Your task to perform on an android device: find which apps use the phone's location Image 0: 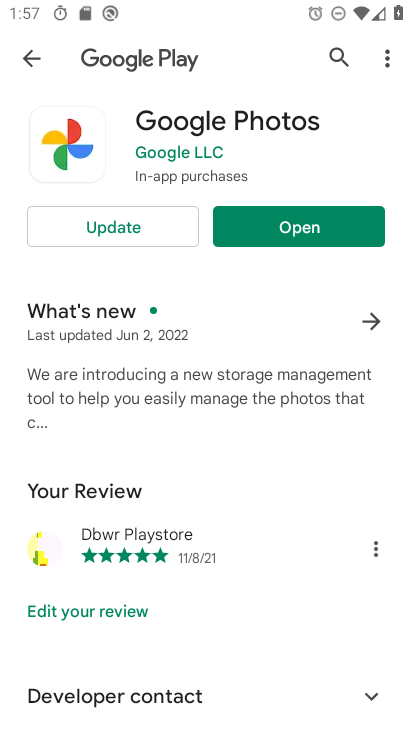
Step 0: press home button
Your task to perform on an android device: find which apps use the phone's location Image 1: 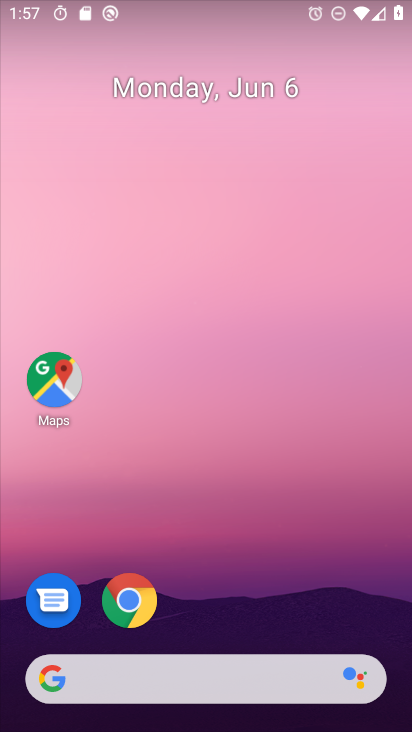
Step 1: drag from (199, 627) to (205, 142)
Your task to perform on an android device: find which apps use the phone's location Image 2: 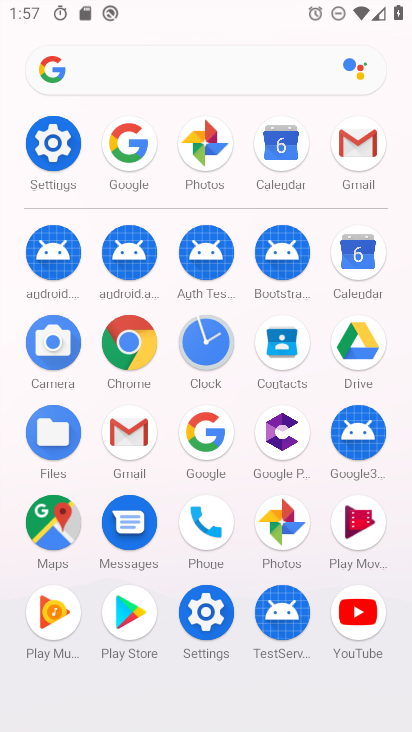
Step 2: click (54, 155)
Your task to perform on an android device: find which apps use the phone's location Image 3: 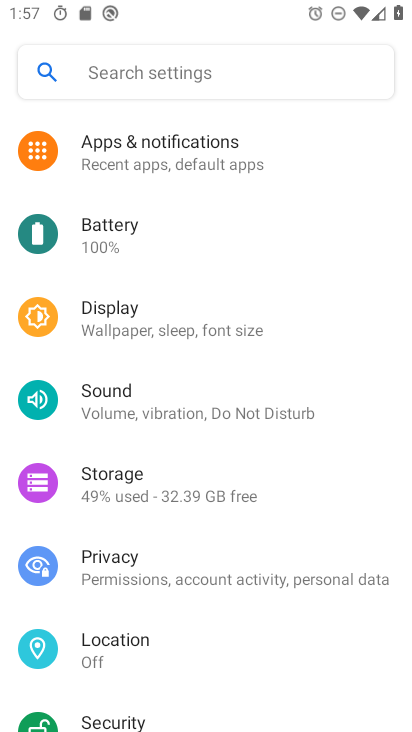
Step 3: click (154, 655)
Your task to perform on an android device: find which apps use the phone's location Image 4: 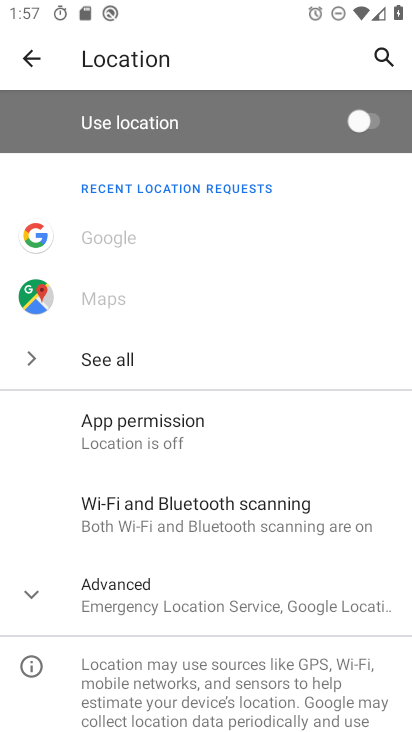
Step 4: click (154, 421)
Your task to perform on an android device: find which apps use the phone's location Image 5: 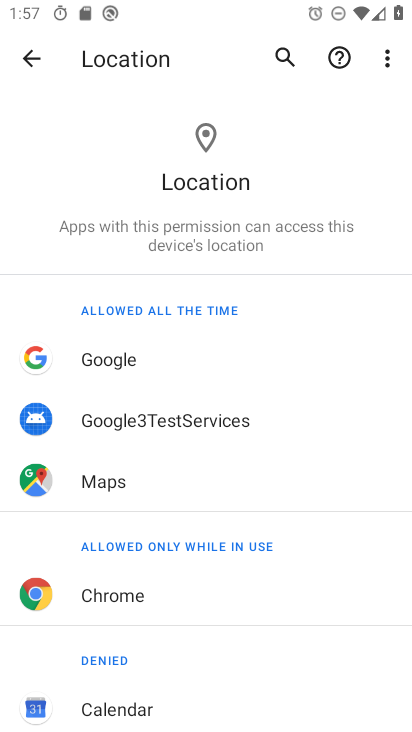
Step 5: task complete